Your task to perform on an android device: Go to internet settings Image 0: 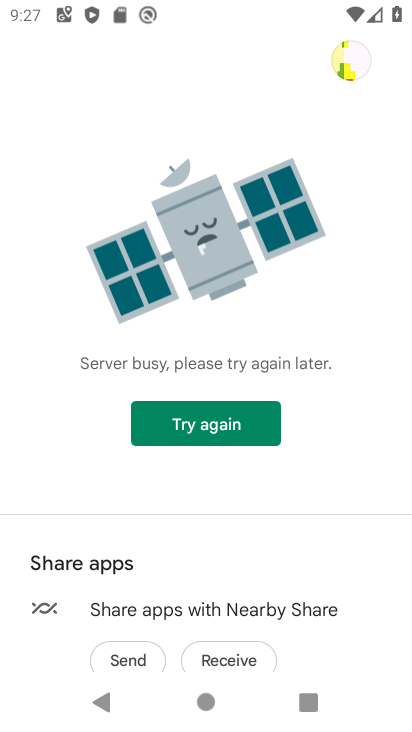
Step 0: press home button
Your task to perform on an android device: Go to internet settings Image 1: 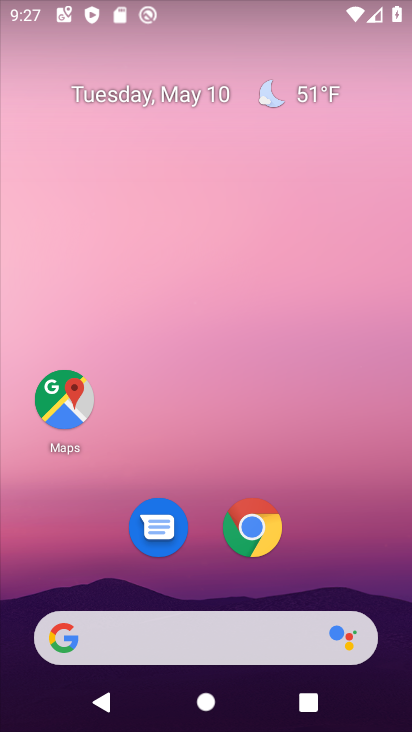
Step 1: drag from (229, 725) to (230, 296)
Your task to perform on an android device: Go to internet settings Image 2: 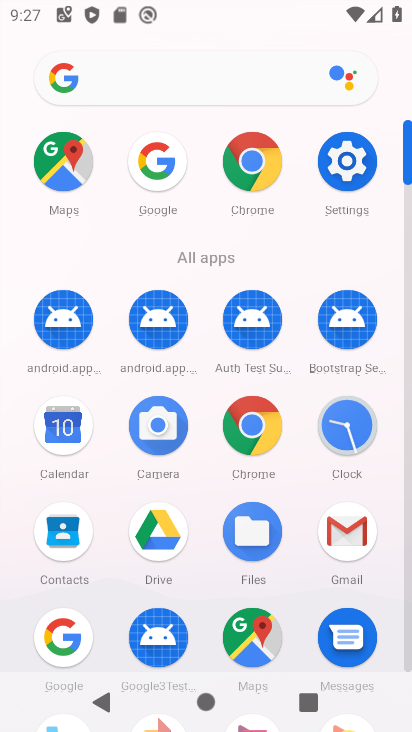
Step 2: click (347, 168)
Your task to perform on an android device: Go to internet settings Image 3: 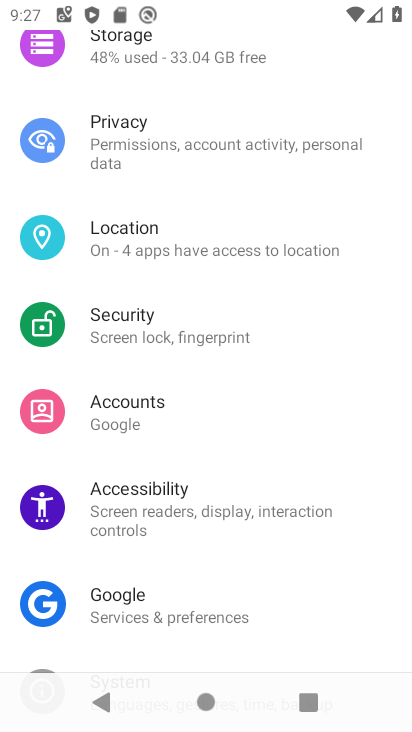
Step 3: drag from (293, 129) to (292, 558)
Your task to perform on an android device: Go to internet settings Image 4: 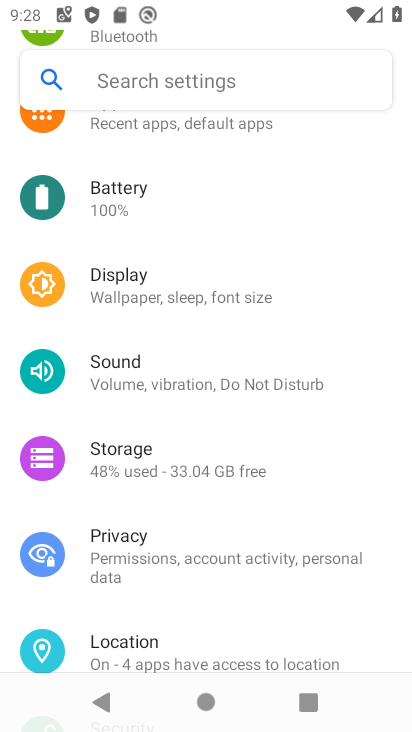
Step 4: drag from (250, 133) to (246, 435)
Your task to perform on an android device: Go to internet settings Image 5: 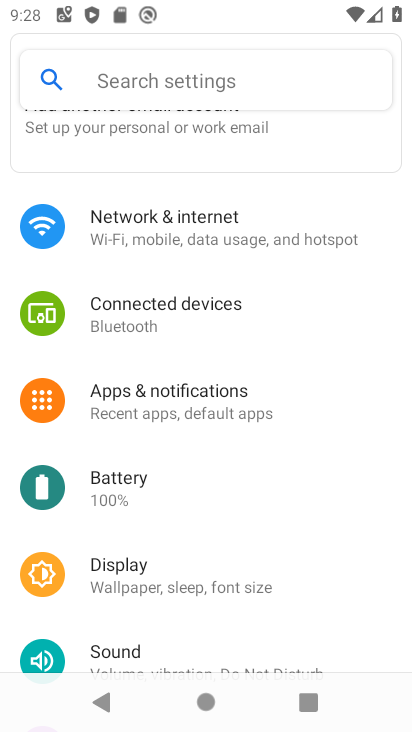
Step 5: click (219, 228)
Your task to perform on an android device: Go to internet settings Image 6: 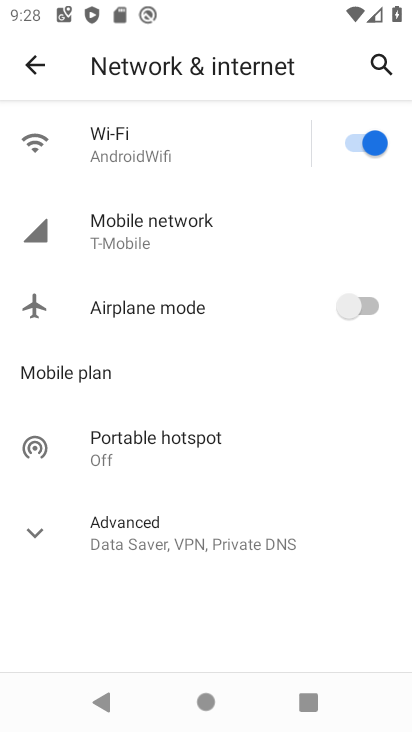
Step 6: click (139, 221)
Your task to perform on an android device: Go to internet settings Image 7: 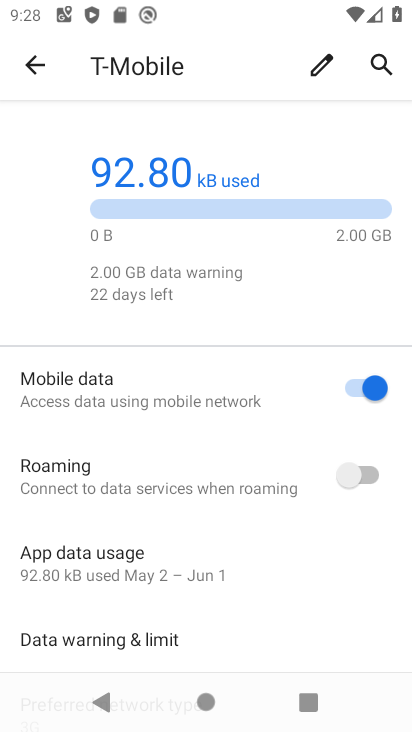
Step 7: task complete